Your task to perform on an android device: turn off javascript in the chrome app Image 0: 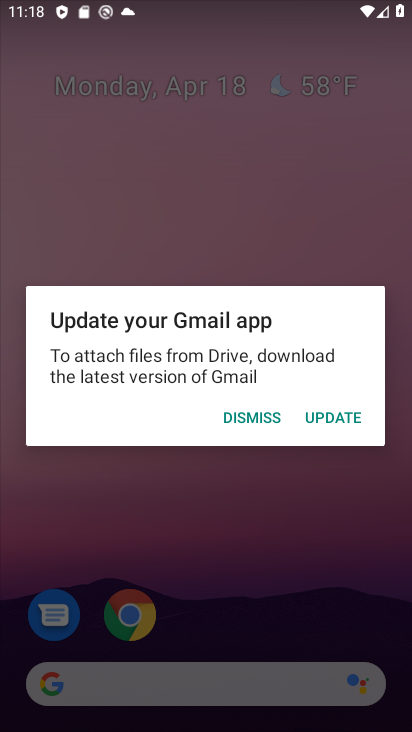
Step 0: press home button
Your task to perform on an android device: turn off javascript in the chrome app Image 1: 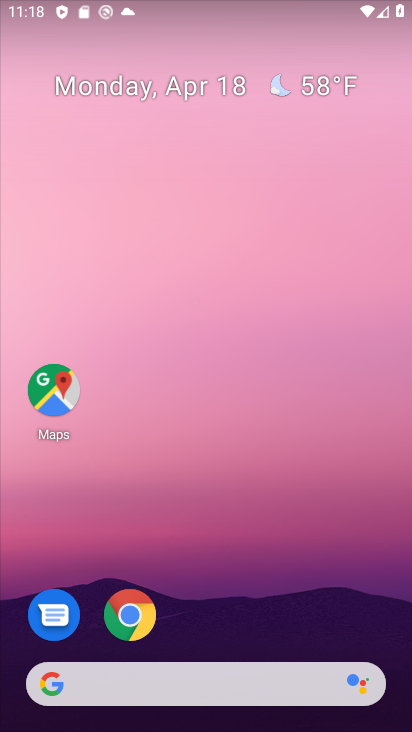
Step 1: drag from (382, 585) to (398, 101)
Your task to perform on an android device: turn off javascript in the chrome app Image 2: 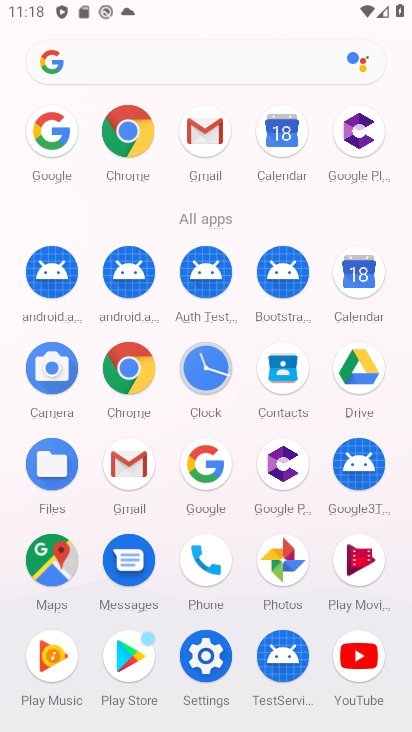
Step 2: click (138, 365)
Your task to perform on an android device: turn off javascript in the chrome app Image 3: 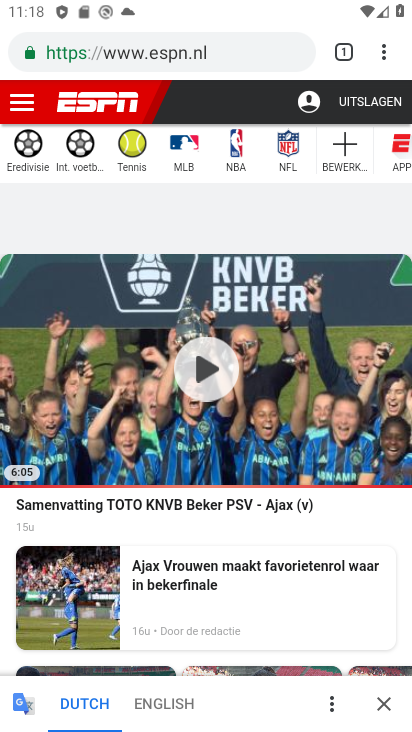
Step 3: click (383, 53)
Your task to perform on an android device: turn off javascript in the chrome app Image 4: 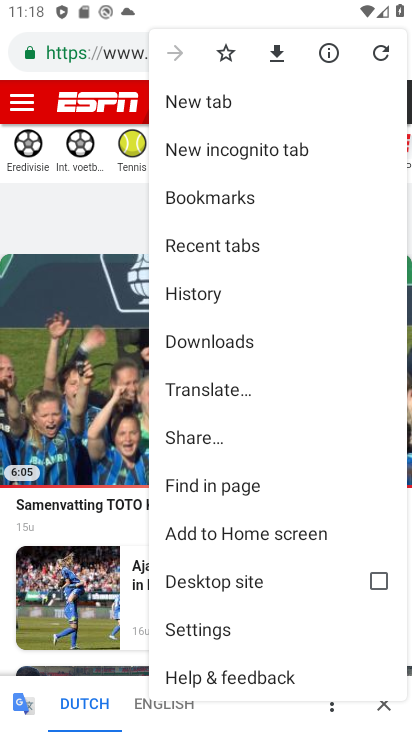
Step 4: click (228, 625)
Your task to perform on an android device: turn off javascript in the chrome app Image 5: 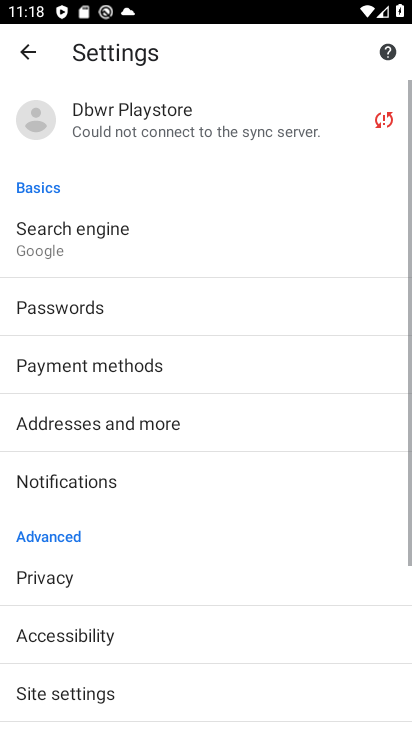
Step 5: drag from (287, 591) to (296, 233)
Your task to perform on an android device: turn off javascript in the chrome app Image 6: 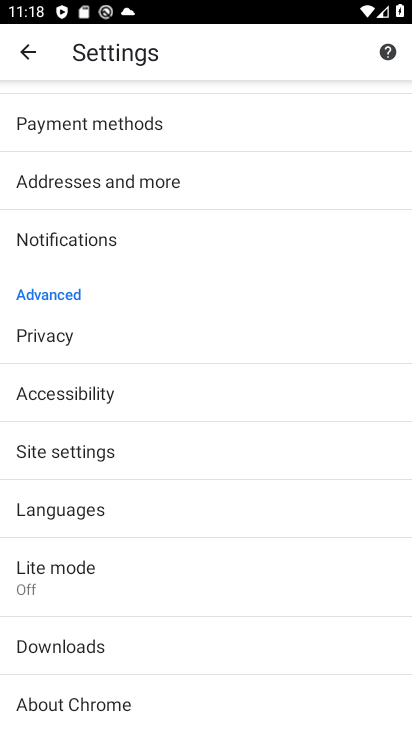
Step 6: click (144, 439)
Your task to perform on an android device: turn off javascript in the chrome app Image 7: 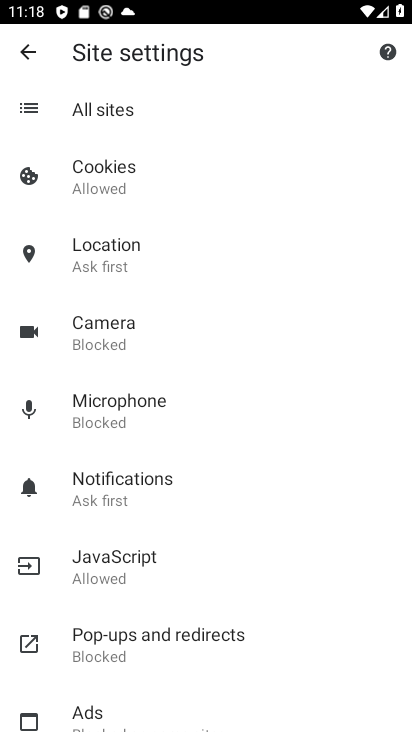
Step 7: click (122, 573)
Your task to perform on an android device: turn off javascript in the chrome app Image 8: 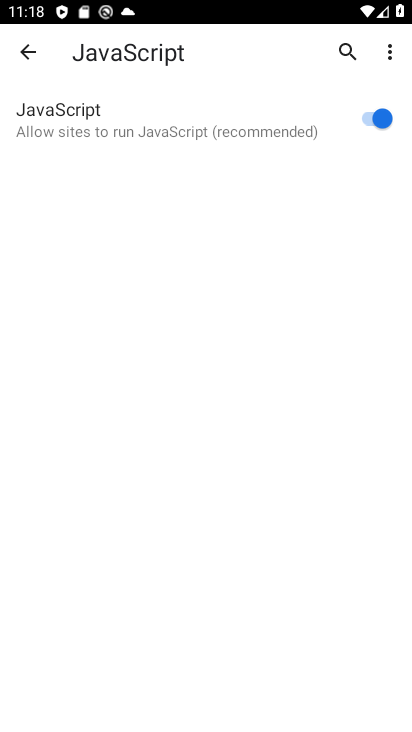
Step 8: click (356, 114)
Your task to perform on an android device: turn off javascript in the chrome app Image 9: 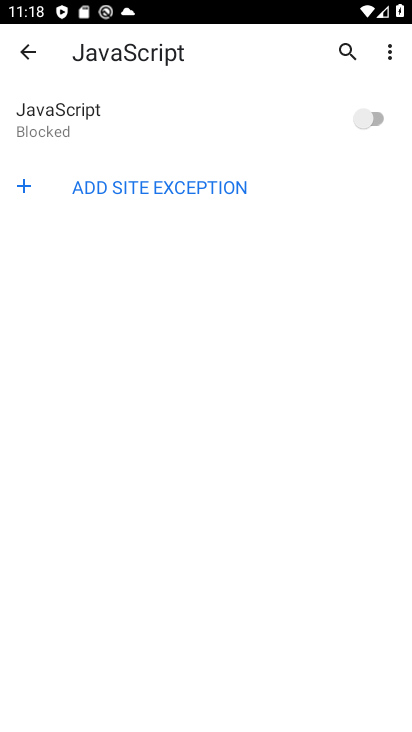
Step 9: task complete